Your task to perform on an android device: remove spam from my inbox in the gmail app Image 0: 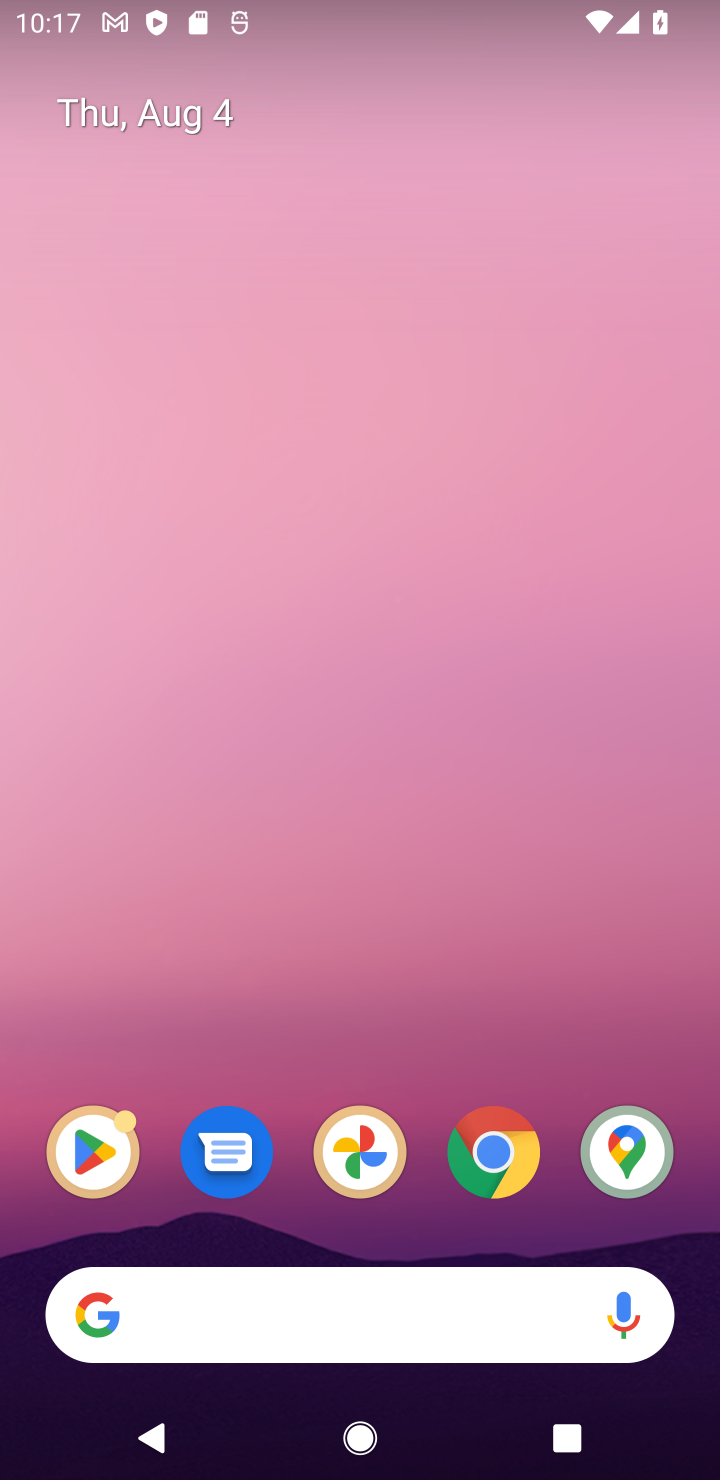
Step 0: drag from (301, 1151) to (322, 524)
Your task to perform on an android device: remove spam from my inbox in the gmail app Image 1: 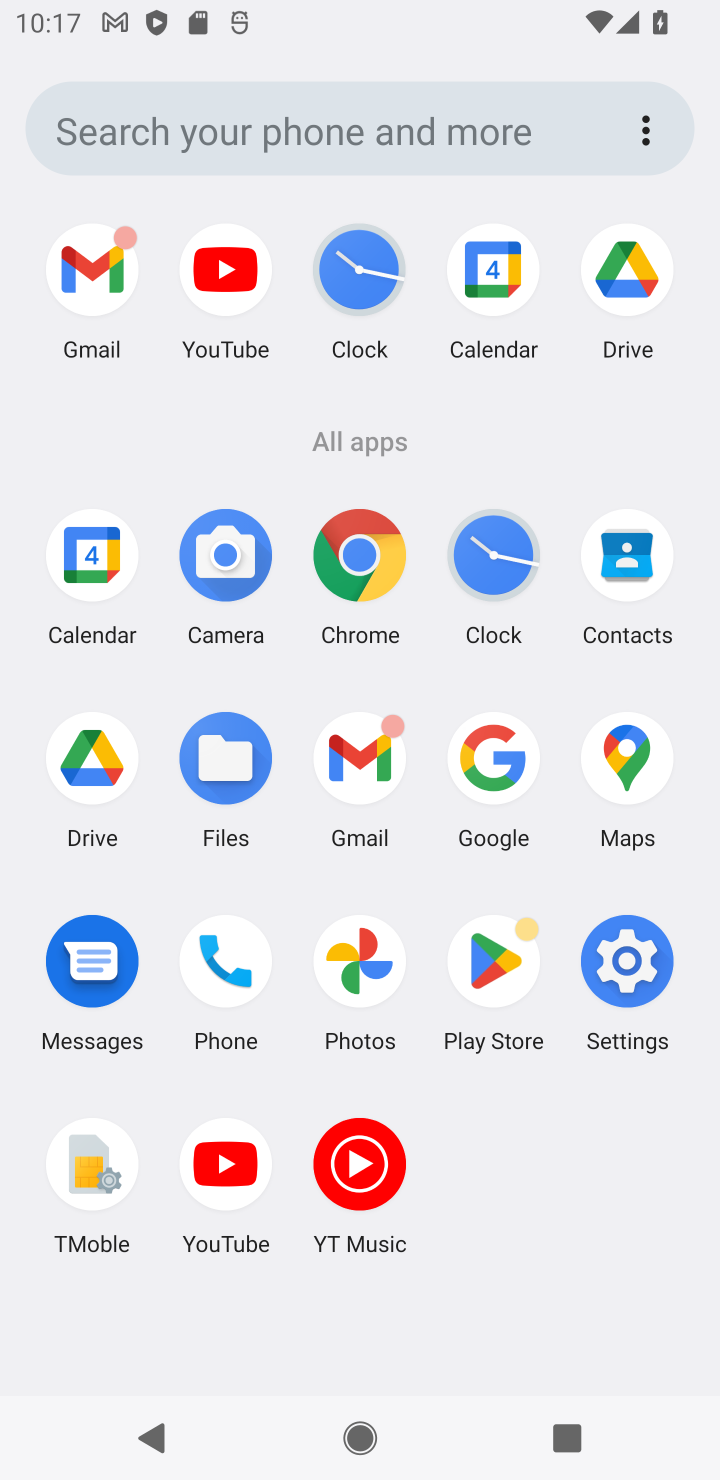
Step 1: click (355, 781)
Your task to perform on an android device: remove spam from my inbox in the gmail app Image 2: 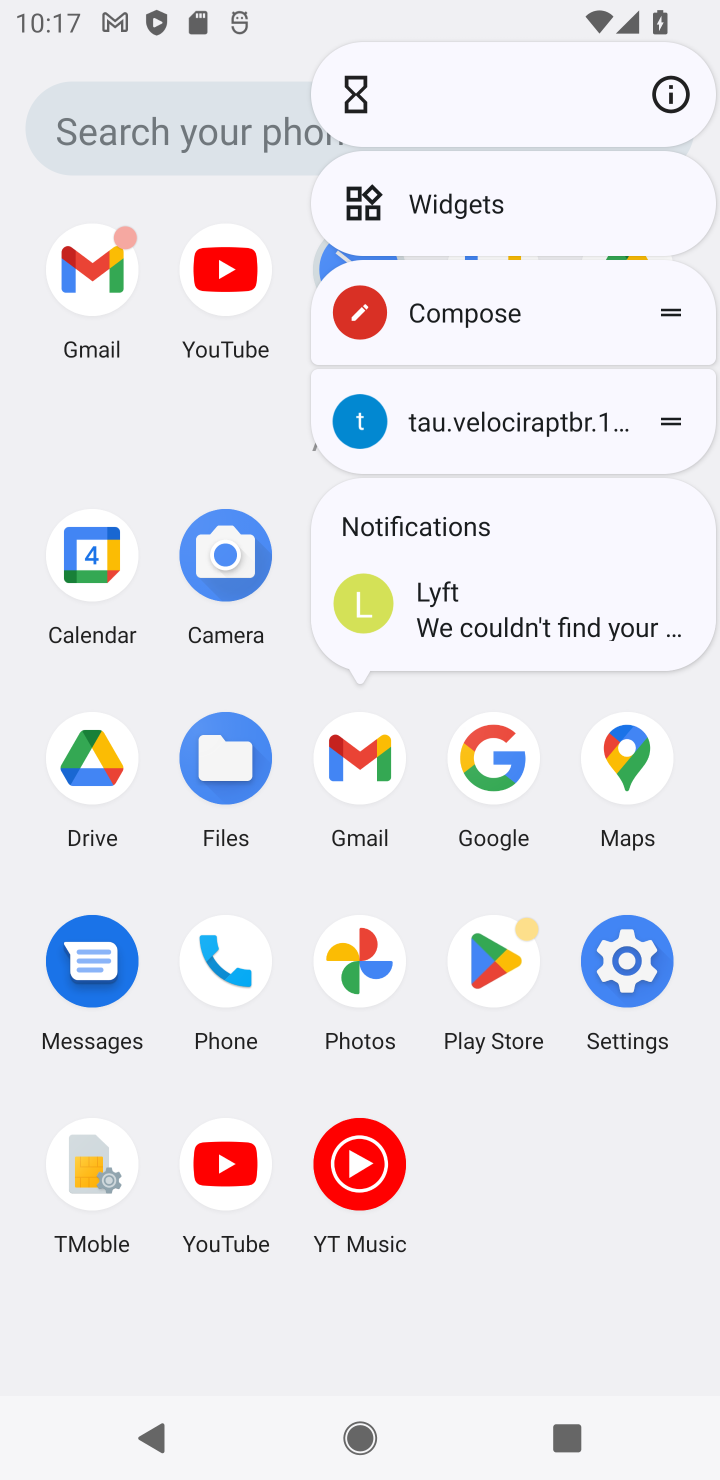
Step 2: click (328, 772)
Your task to perform on an android device: remove spam from my inbox in the gmail app Image 3: 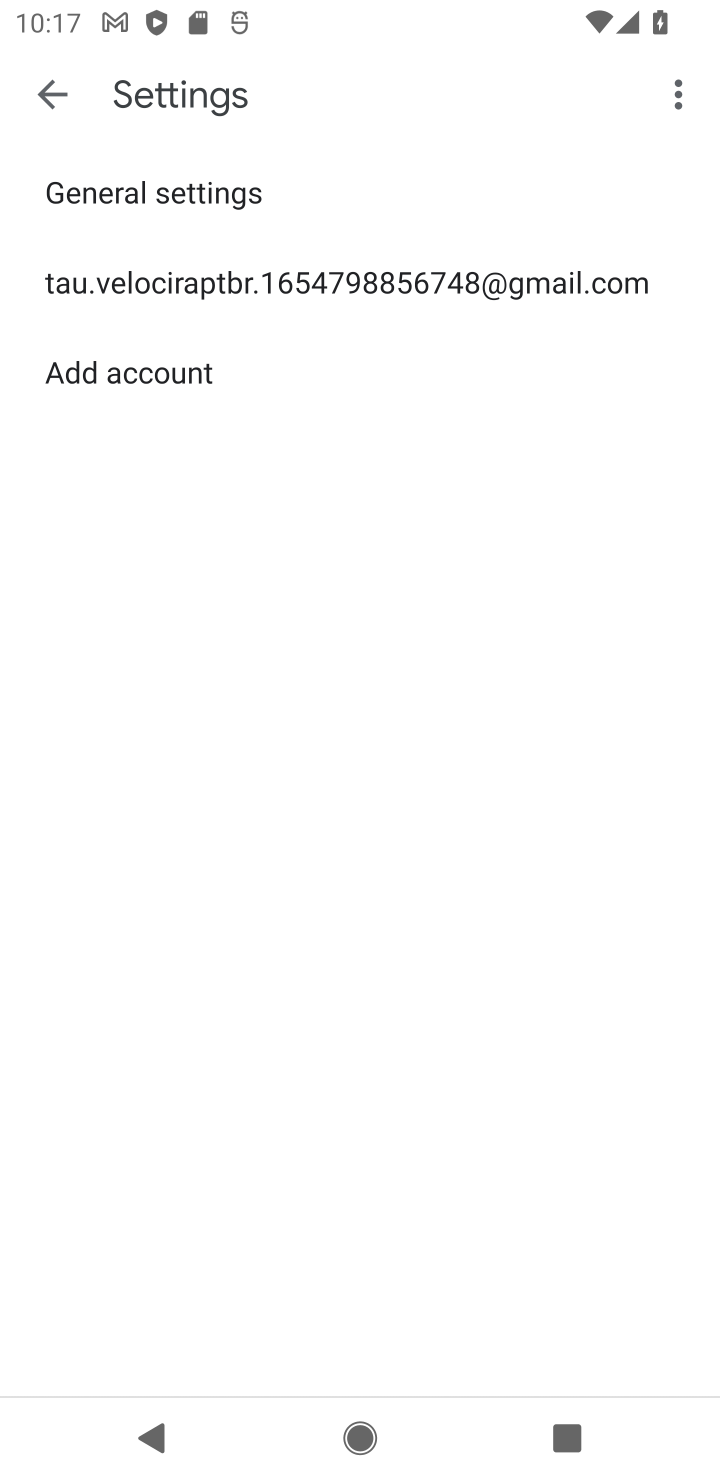
Step 3: click (47, 109)
Your task to perform on an android device: remove spam from my inbox in the gmail app Image 4: 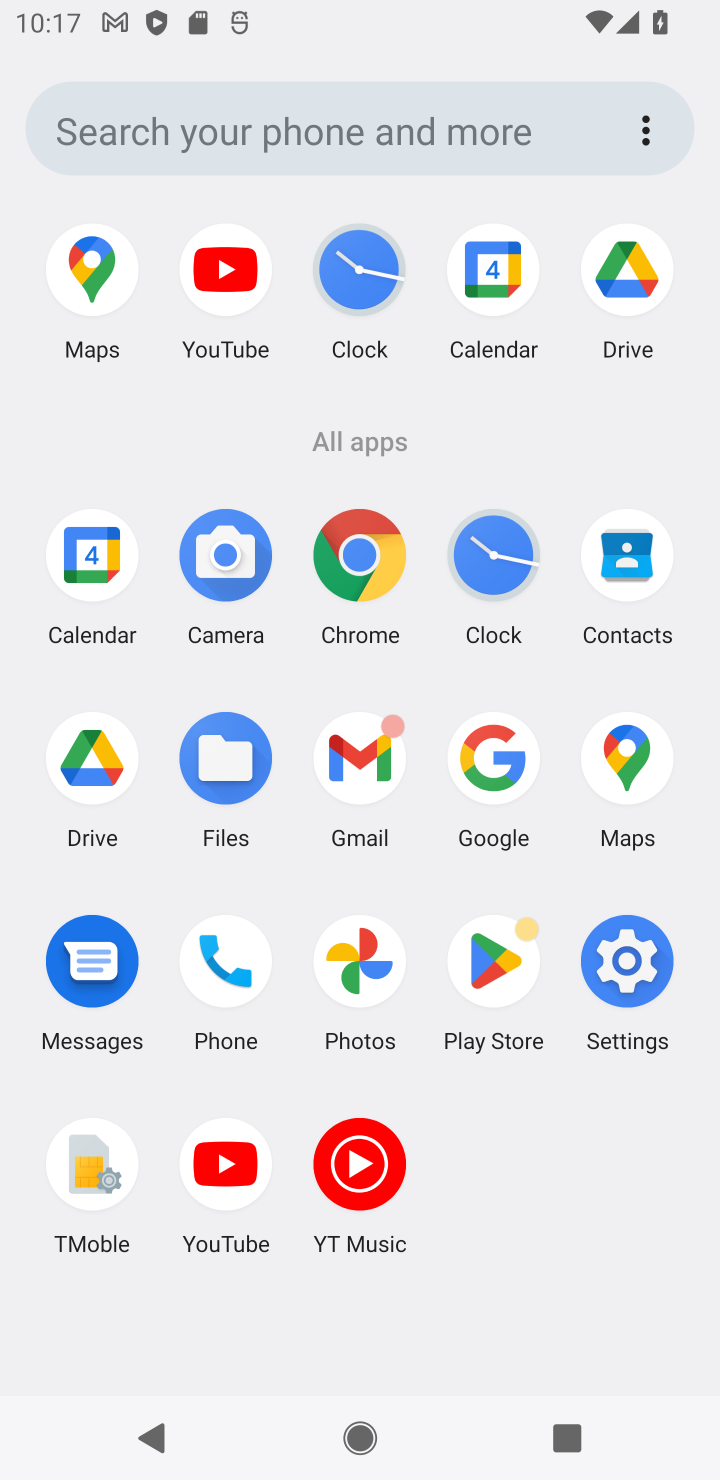
Step 4: click (358, 816)
Your task to perform on an android device: remove spam from my inbox in the gmail app Image 5: 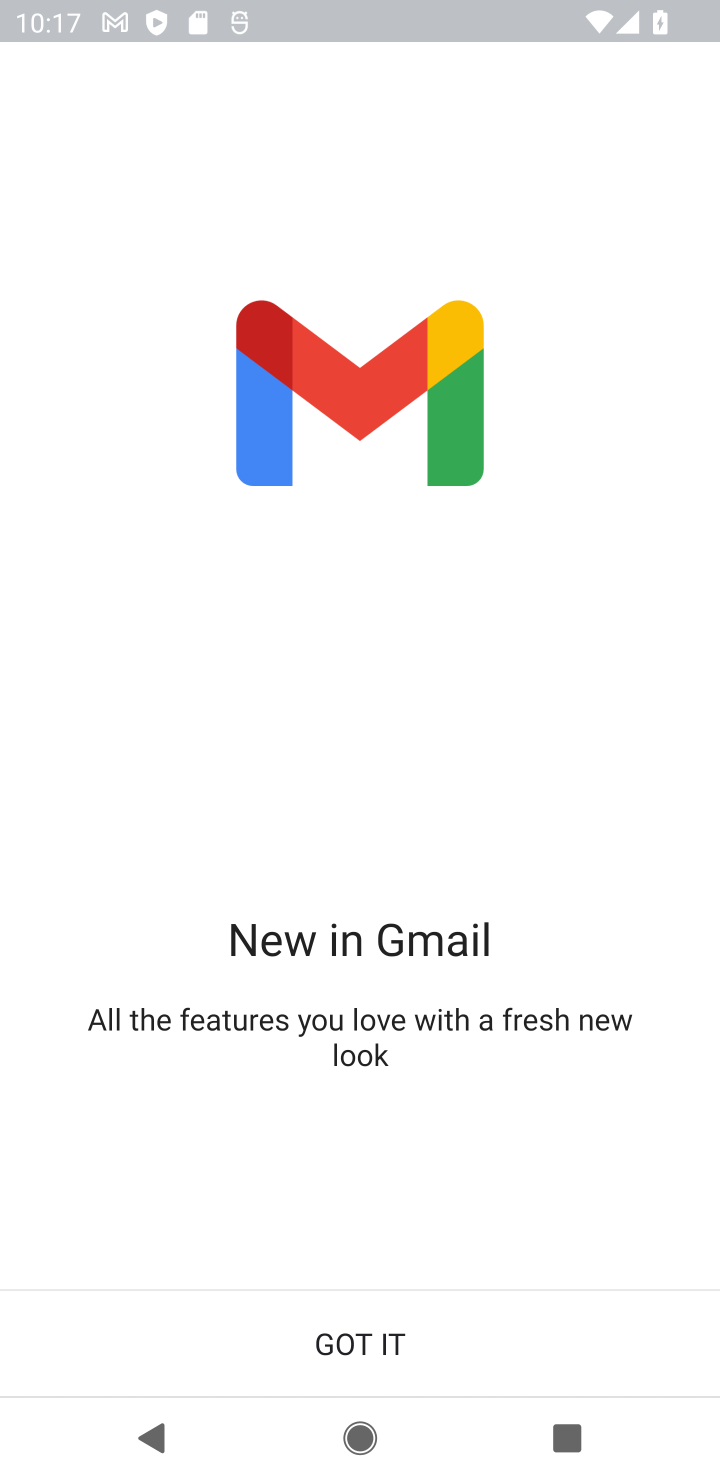
Step 5: click (341, 1338)
Your task to perform on an android device: remove spam from my inbox in the gmail app Image 6: 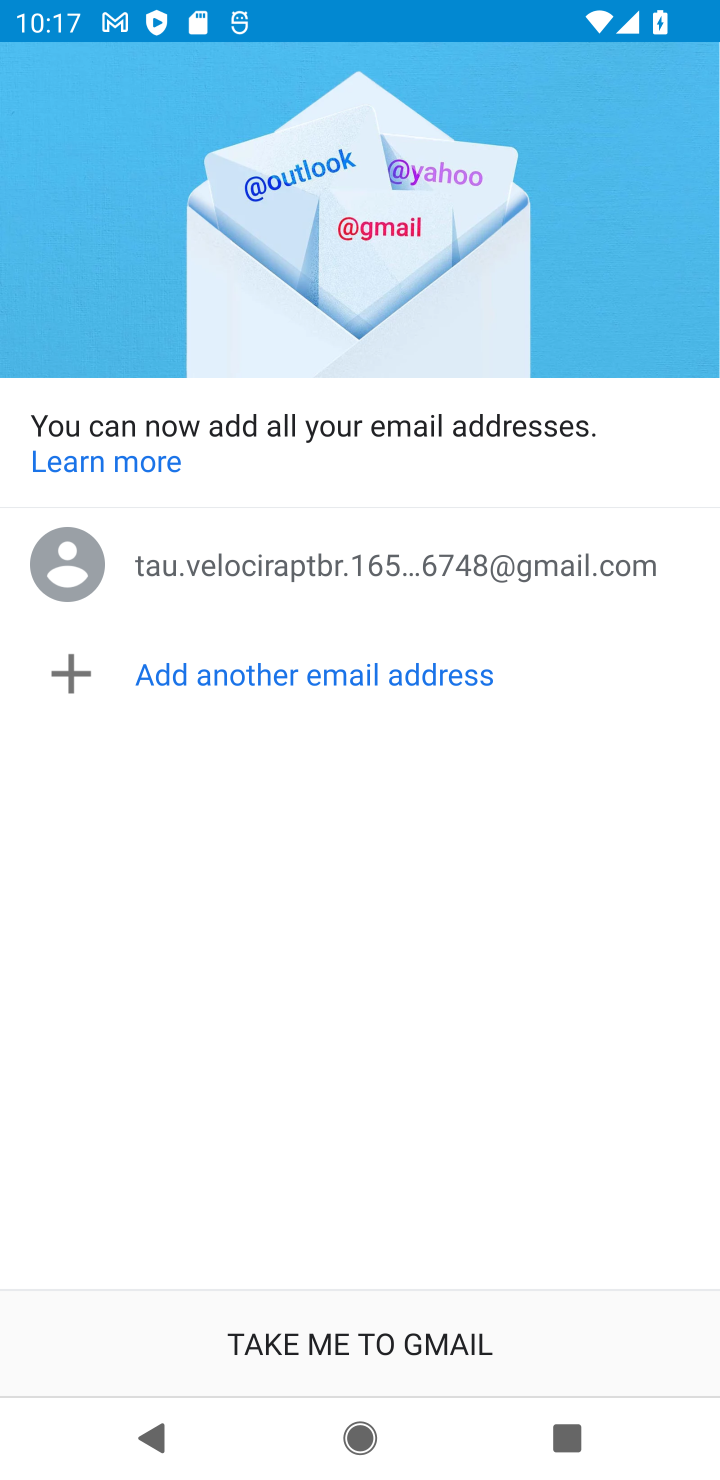
Step 6: click (346, 1336)
Your task to perform on an android device: remove spam from my inbox in the gmail app Image 7: 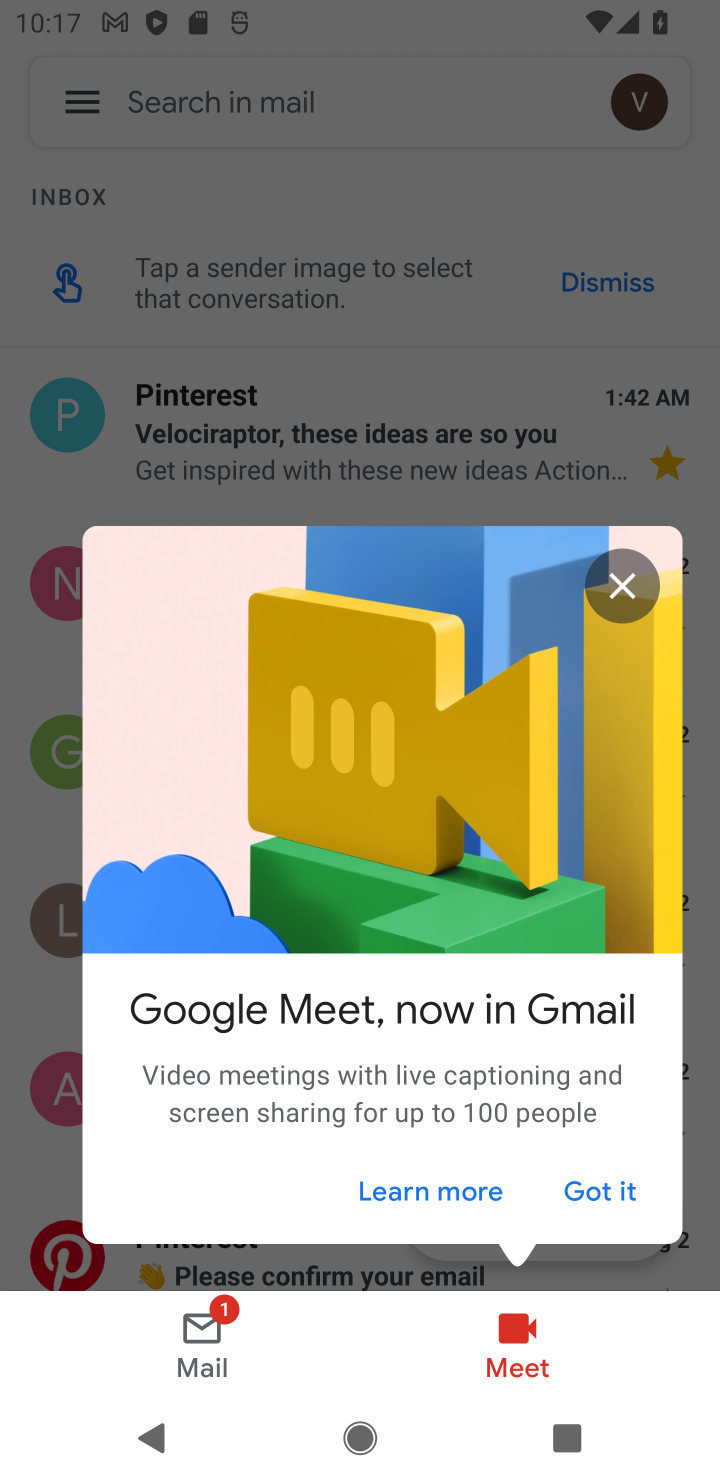
Step 7: click (97, 96)
Your task to perform on an android device: remove spam from my inbox in the gmail app Image 8: 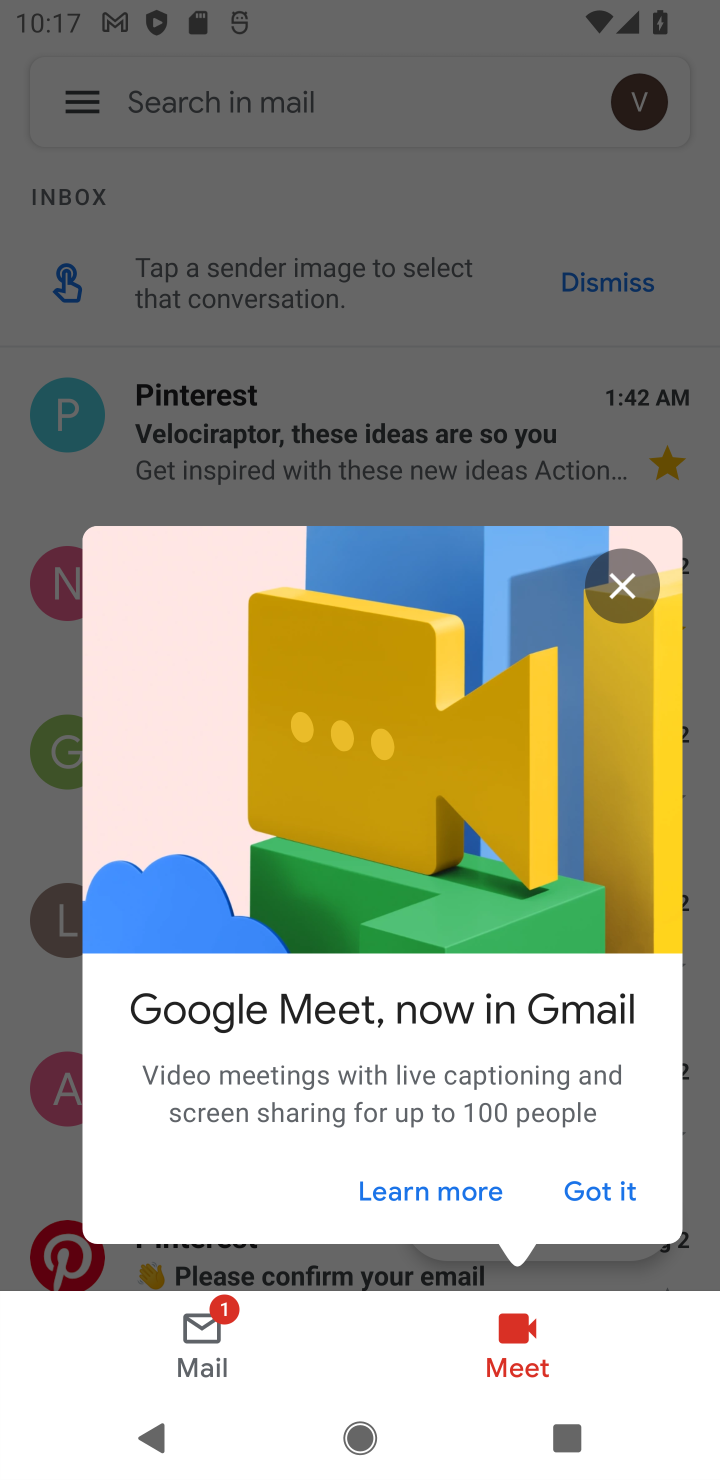
Step 8: click (617, 576)
Your task to perform on an android device: remove spam from my inbox in the gmail app Image 9: 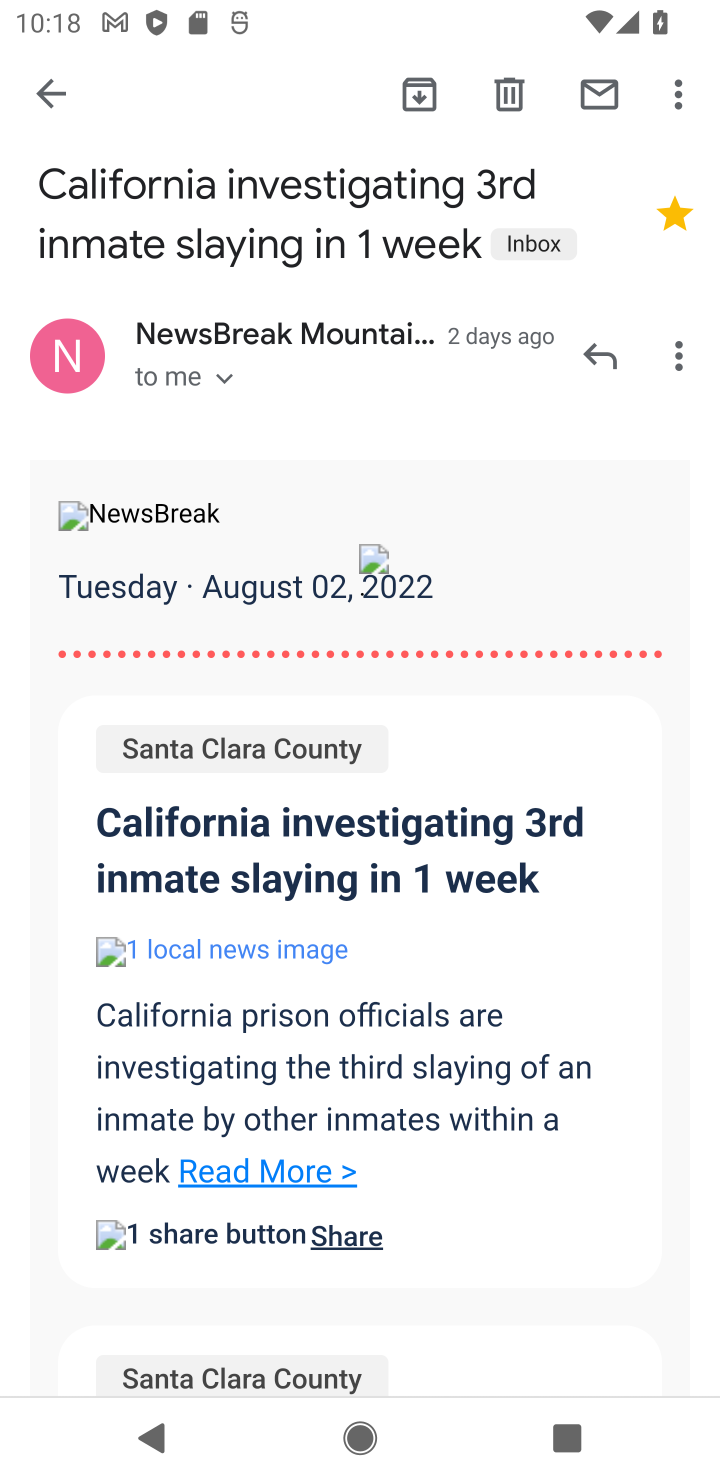
Step 9: click (49, 83)
Your task to perform on an android device: remove spam from my inbox in the gmail app Image 10: 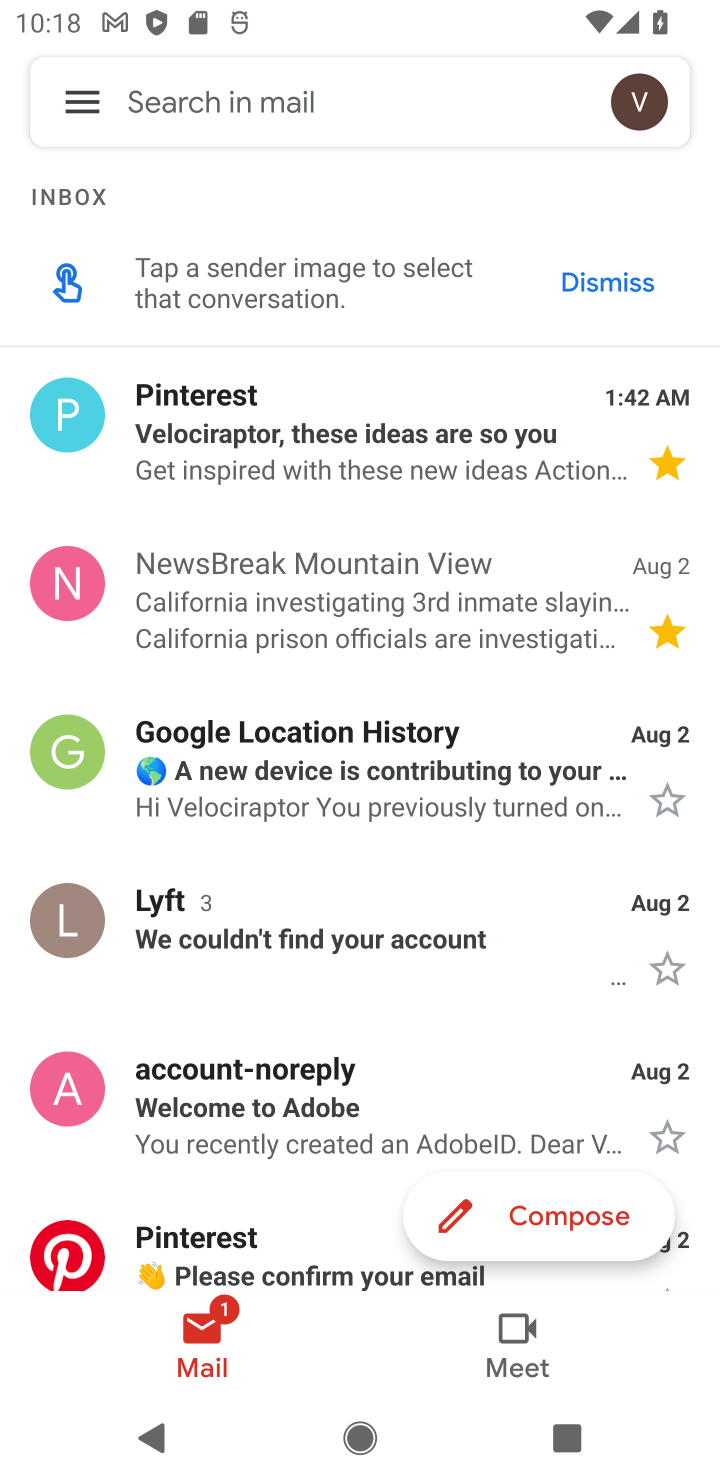
Step 10: click (89, 89)
Your task to perform on an android device: remove spam from my inbox in the gmail app Image 11: 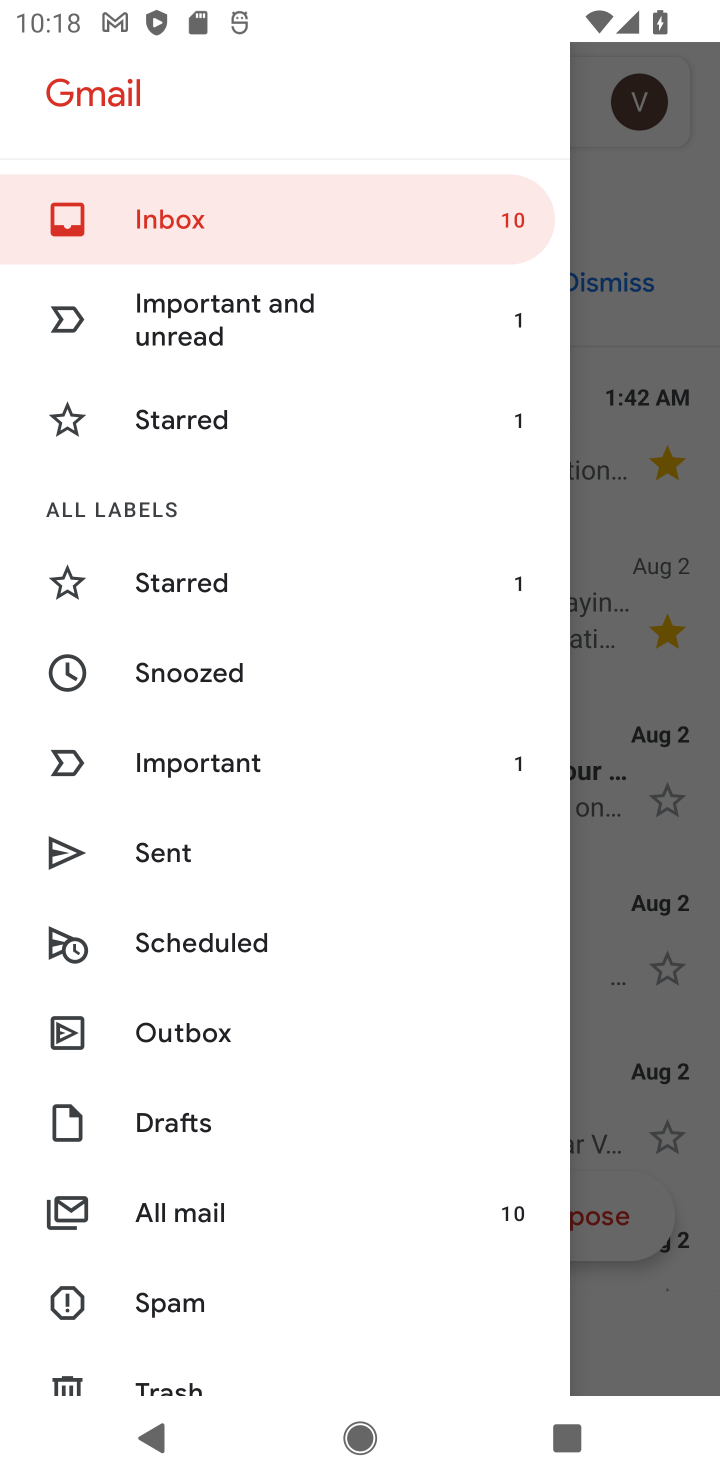
Step 11: click (181, 1303)
Your task to perform on an android device: remove spam from my inbox in the gmail app Image 12: 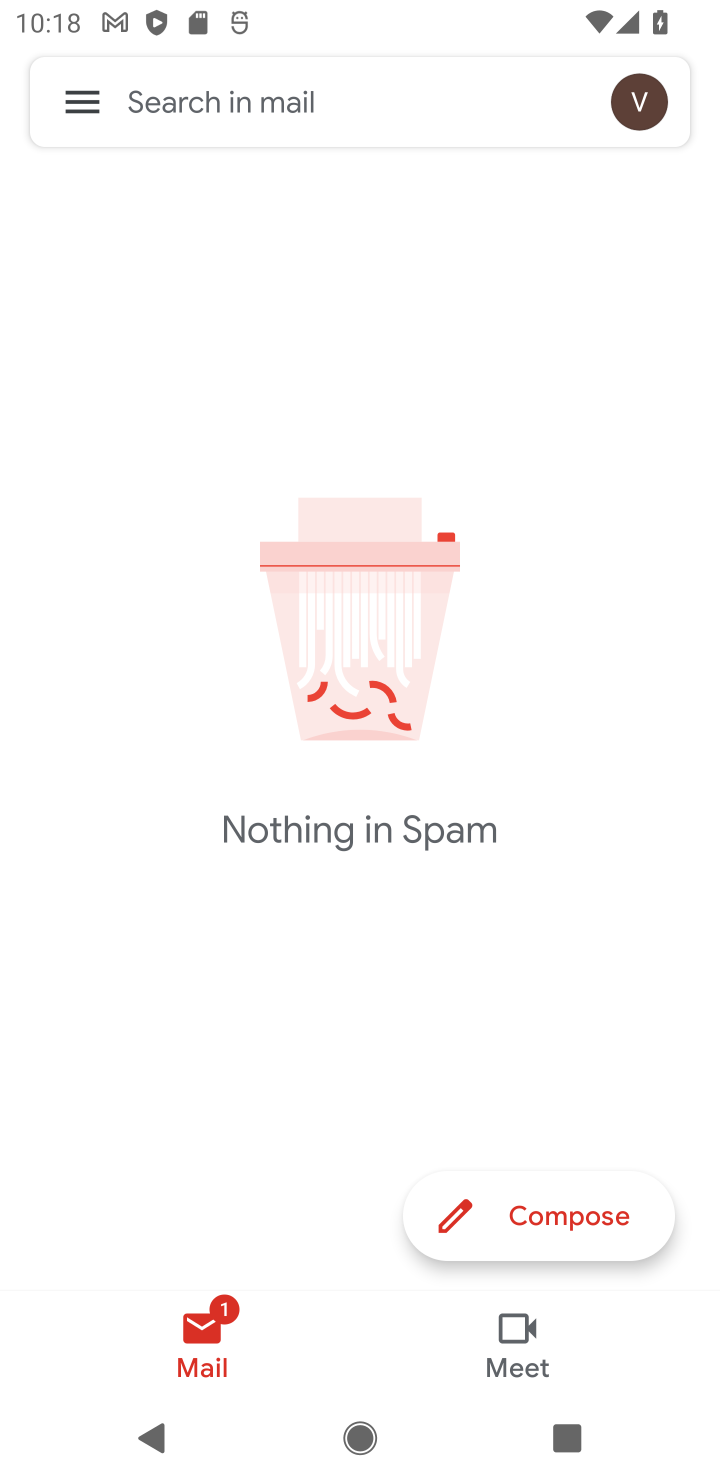
Step 12: task complete